Your task to perform on an android device: Open Yahoo.com Image 0: 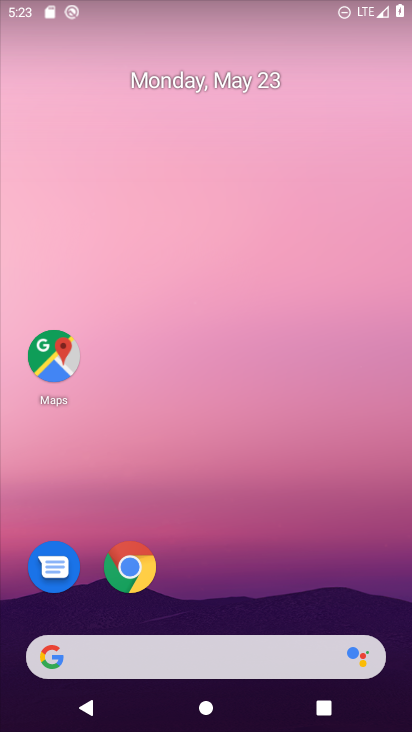
Step 0: click (131, 565)
Your task to perform on an android device: Open Yahoo.com Image 1: 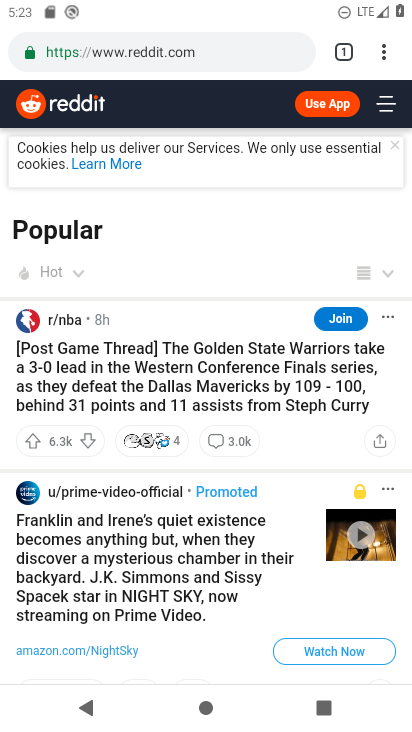
Step 1: click (239, 53)
Your task to perform on an android device: Open Yahoo.com Image 2: 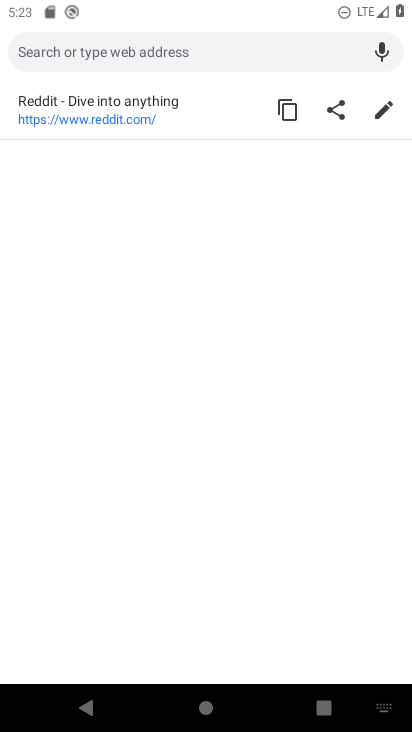
Step 2: type "Yahoo.com"
Your task to perform on an android device: Open Yahoo.com Image 3: 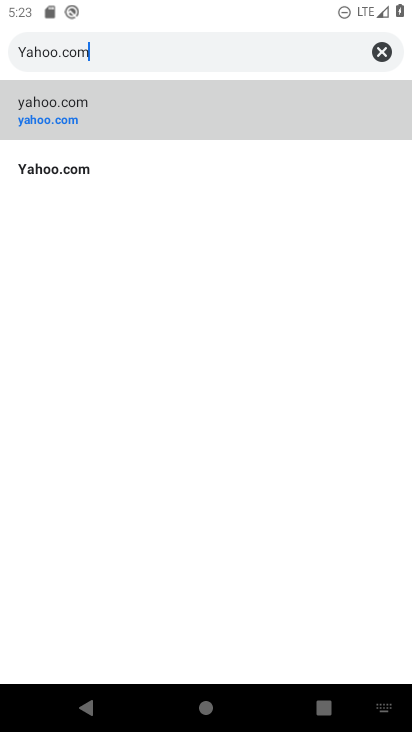
Step 3: type ""
Your task to perform on an android device: Open Yahoo.com Image 4: 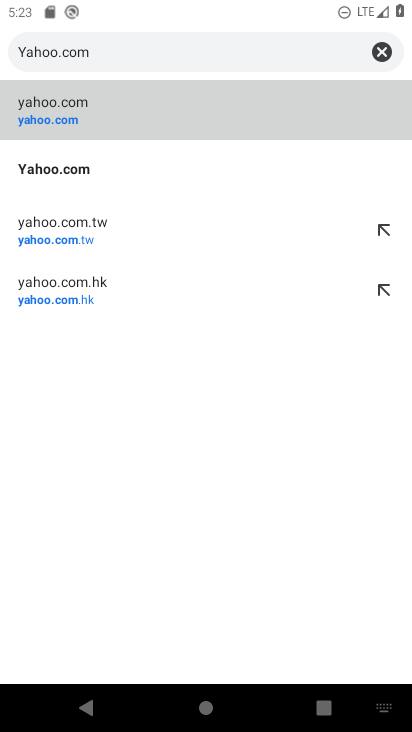
Step 4: click (77, 164)
Your task to perform on an android device: Open Yahoo.com Image 5: 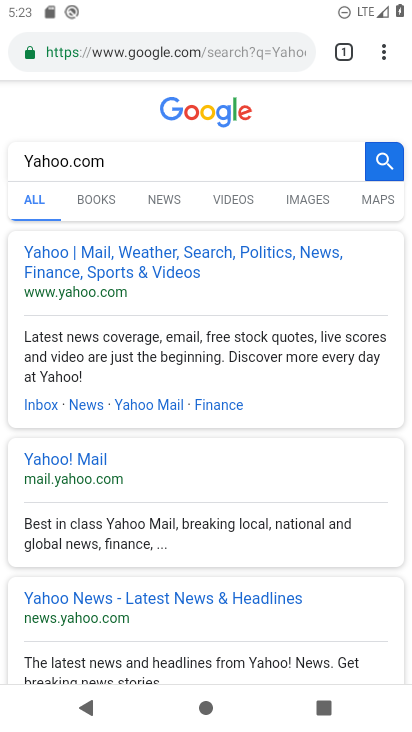
Step 5: click (99, 459)
Your task to perform on an android device: Open Yahoo.com Image 6: 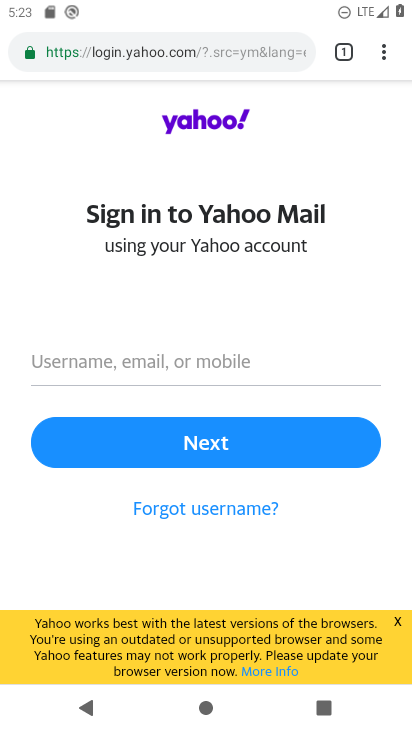
Step 6: task complete